Your task to perform on an android device: add a label to a message in the gmail app Image 0: 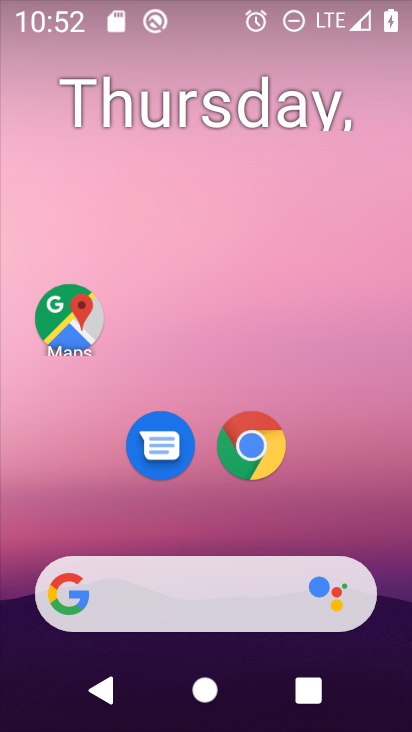
Step 0: drag from (385, 630) to (311, 71)
Your task to perform on an android device: add a label to a message in the gmail app Image 1: 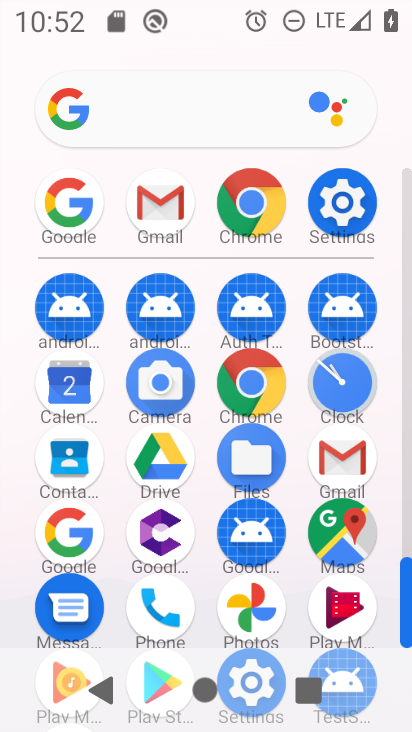
Step 1: click (329, 463)
Your task to perform on an android device: add a label to a message in the gmail app Image 2: 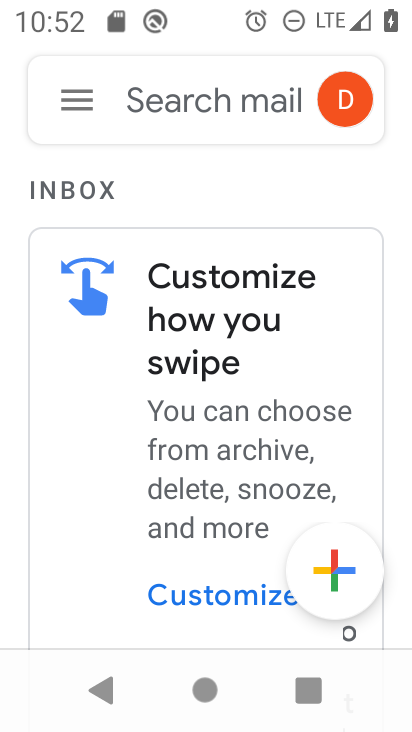
Step 2: task complete